Your task to perform on an android device: Is it going to rain tomorrow? Image 0: 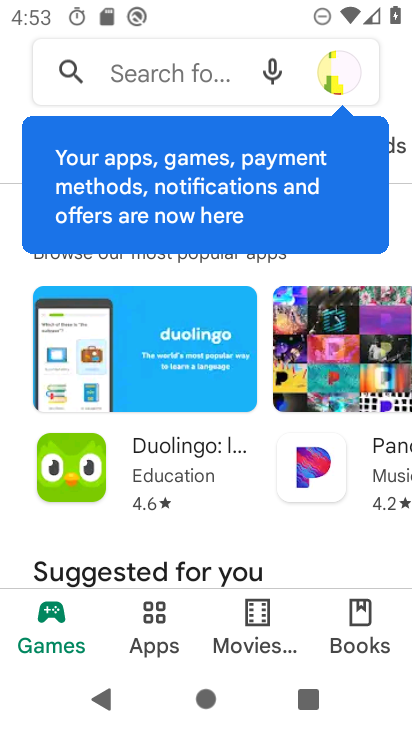
Step 0: press back button
Your task to perform on an android device: Is it going to rain tomorrow? Image 1: 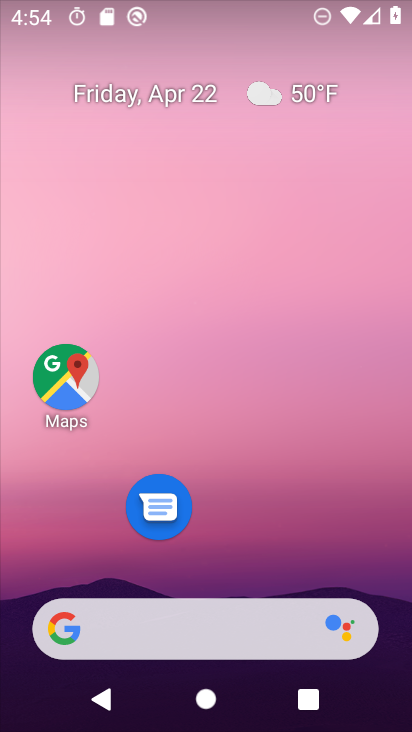
Step 1: drag from (205, 553) to (287, 63)
Your task to perform on an android device: Is it going to rain tomorrow? Image 2: 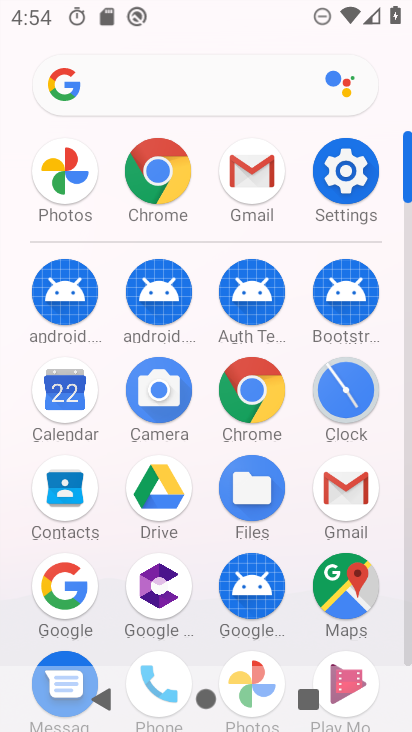
Step 2: press back button
Your task to perform on an android device: Is it going to rain tomorrow? Image 3: 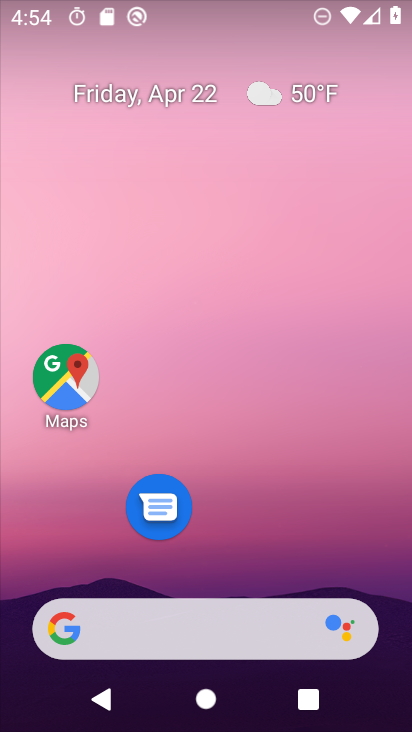
Step 3: click (271, 82)
Your task to perform on an android device: Is it going to rain tomorrow? Image 4: 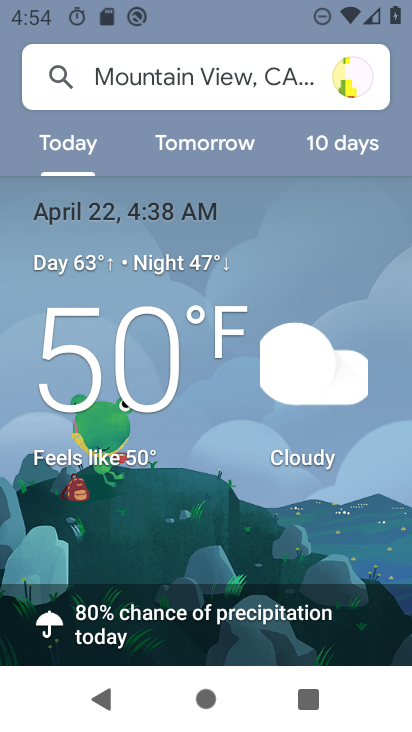
Step 4: click (201, 139)
Your task to perform on an android device: Is it going to rain tomorrow? Image 5: 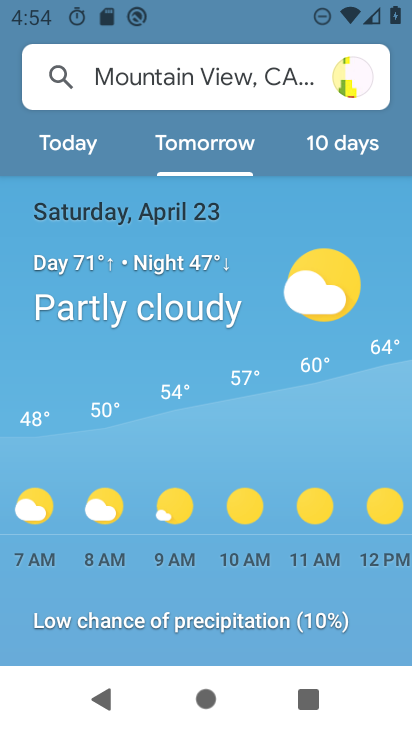
Step 5: task complete